Your task to perform on an android device: Go to notification settings Image 0: 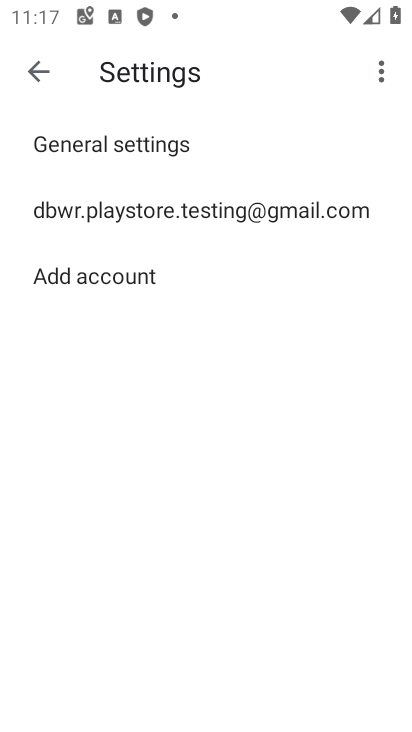
Step 0: press home button
Your task to perform on an android device: Go to notification settings Image 1: 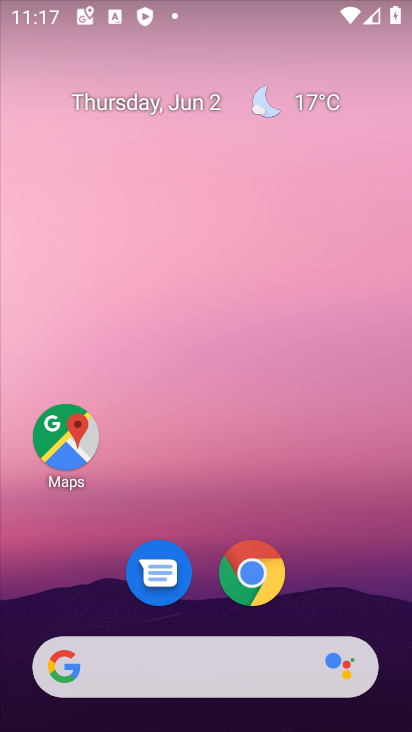
Step 1: drag from (377, 574) to (265, 2)
Your task to perform on an android device: Go to notification settings Image 2: 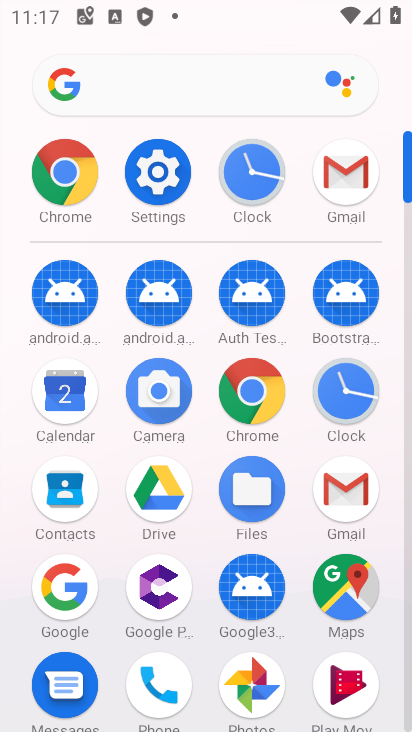
Step 2: click (164, 143)
Your task to perform on an android device: Go to notification settings Image 3: 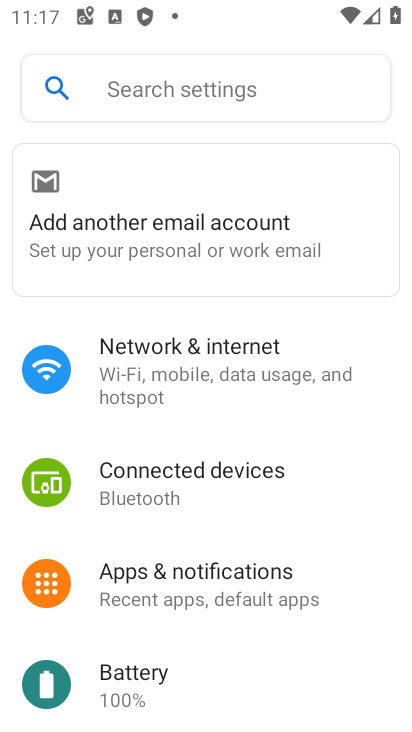
Step 3: click (213, 605)
Your task to perform on an android device: Go to notification settings Image 4: 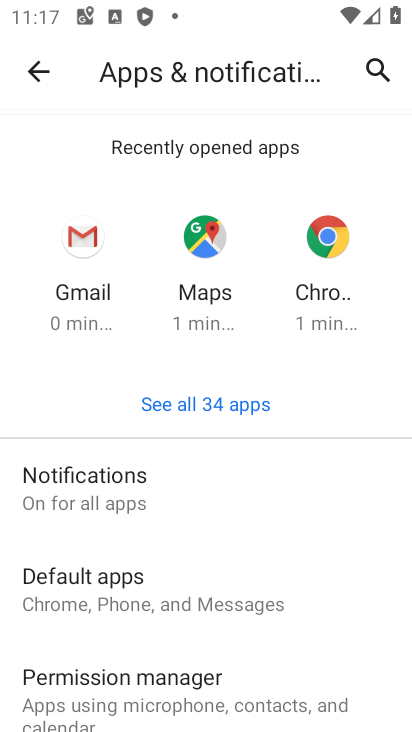
Step 4: click (123, 500)
Your task to perform on an android device: Go to notification settings Image 5: 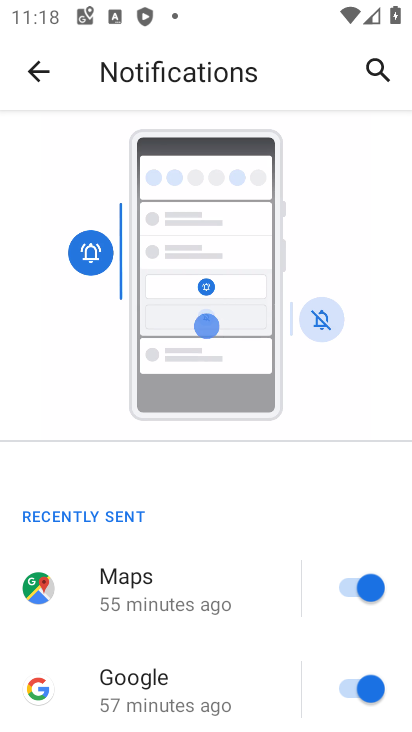
Step 5: task complete